Your task to perform on an android device: Go to Yahoo.com Image 0: 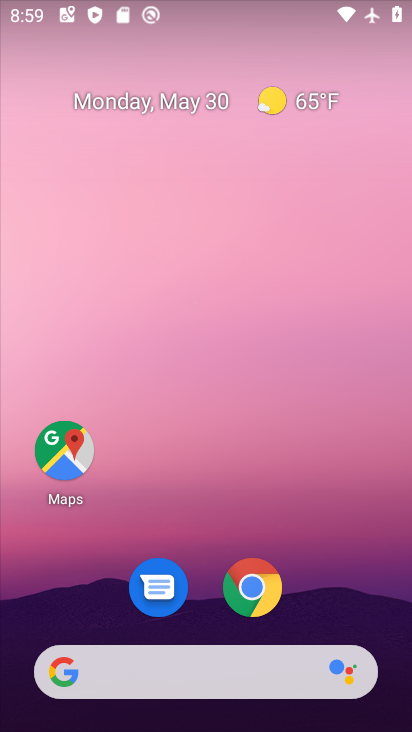
Step 0: click (250, 594)
Your task to perform on an android device: Go to Yahoo.com Image 1: 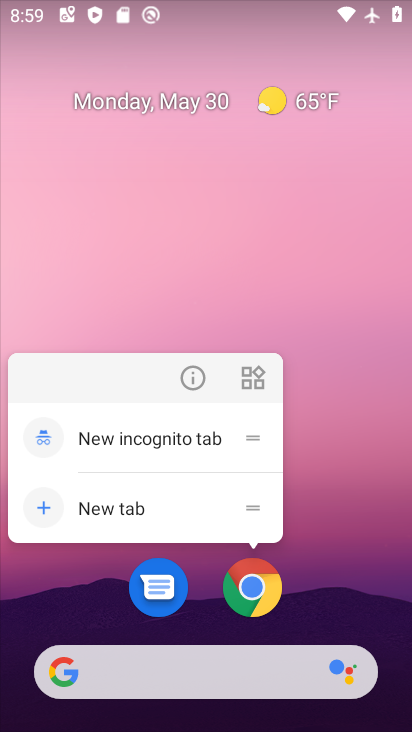
Step 1: click (250, 594)
Your task to perform on an android device: Go to Yahoo.com Image 2: 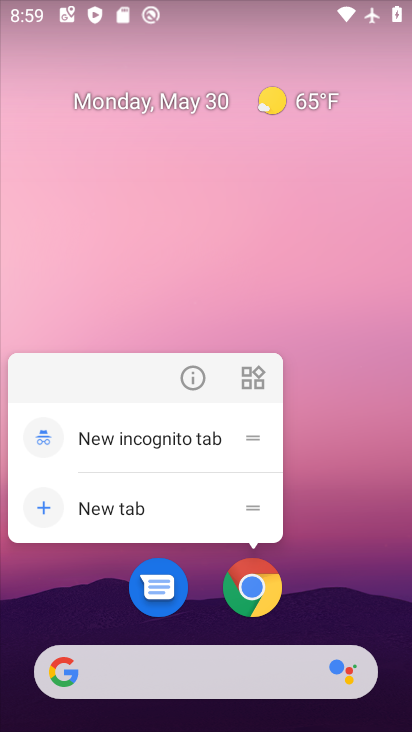
Step 2: click (256, 588)
Your task to perform on an android device: Go to Yahoo.com Image 3: 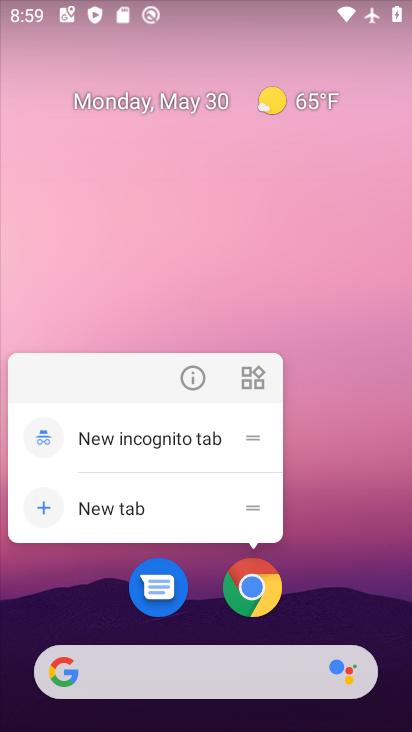
Step 3: click (256, 592)
Your task to perform on an android device: Go to Yahoo.com Image 4: 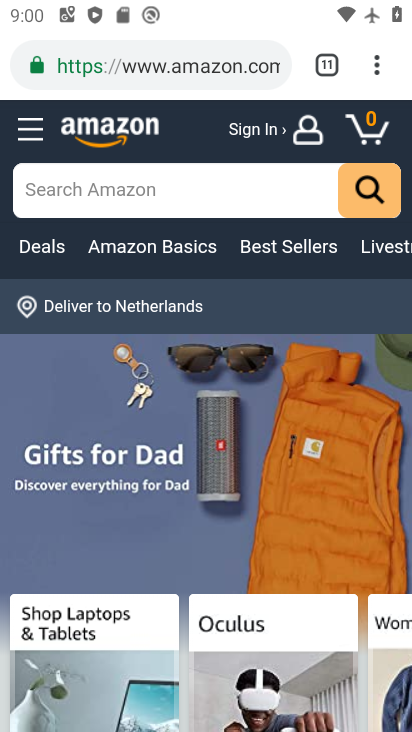
Step 4: drag from (378, 67) to (227, 131)
Your task to perform on an android device: Go to Yahoo.com Image 5: 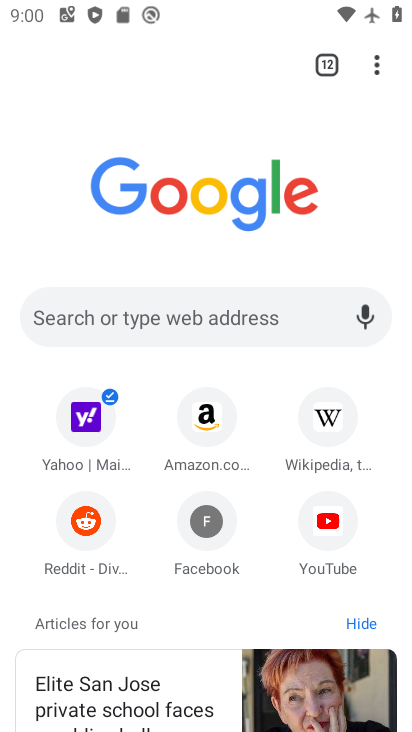
Step 5: click (88, 418)
Your task to perform on an android device: Go to Yahoo.com Image 6: 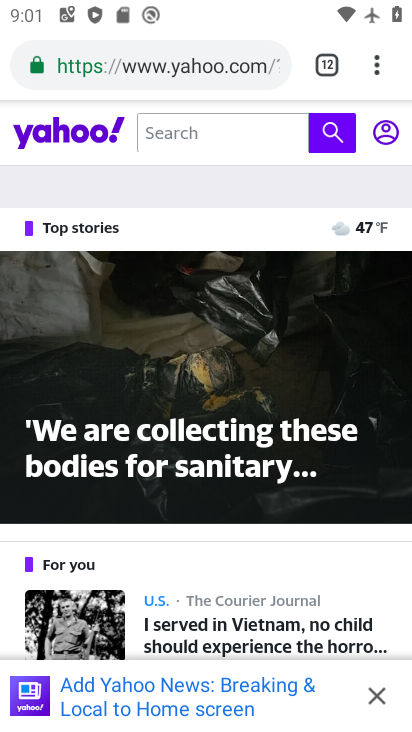
Step 6: task complete